Your task to perform on an android device: Show me the alarms in the clock app Image 0: 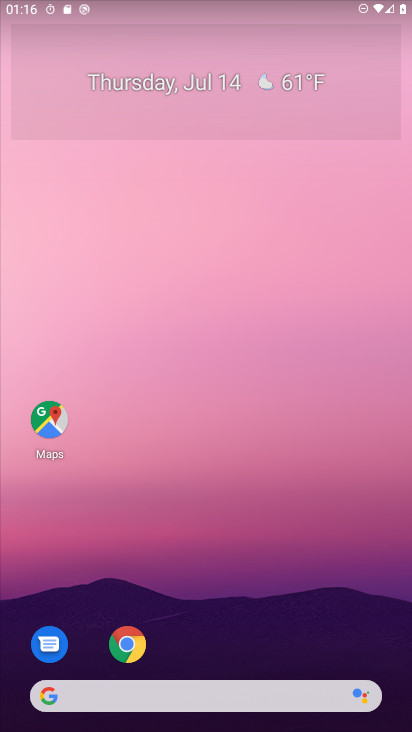
Step 0: drag from (286, 498) to (323, 76)
Your task to perform on an android device: Show me the alarms in the clock app Image 1: 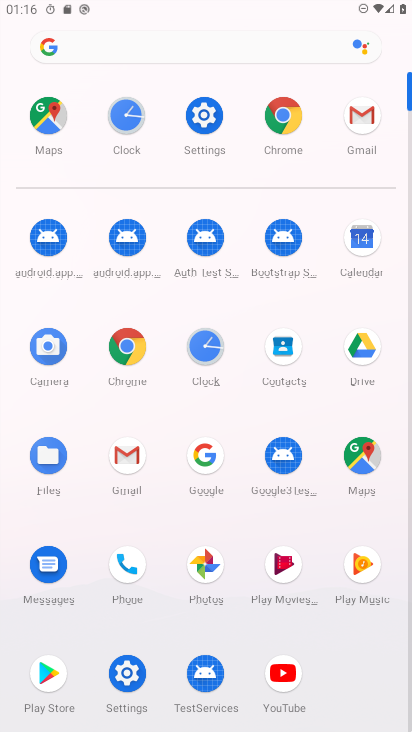
Step 1: click (201, 354)
Your task to perform on an android device: Show me the alarms in the clock app Image 2: 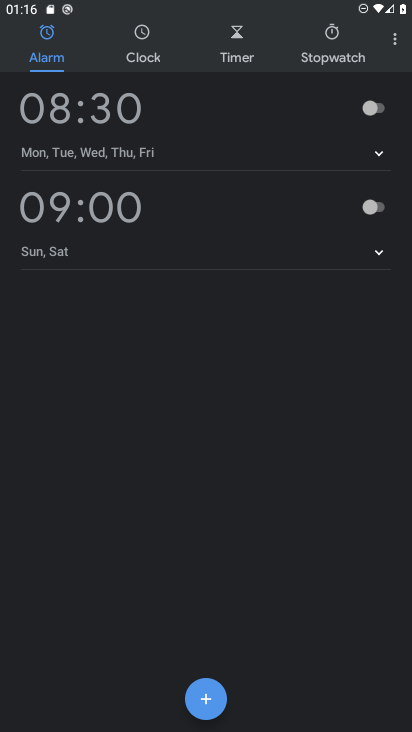
Step 2: task complete